Your task to perform on an android device: add a label to a message in the gmail app Image 0: 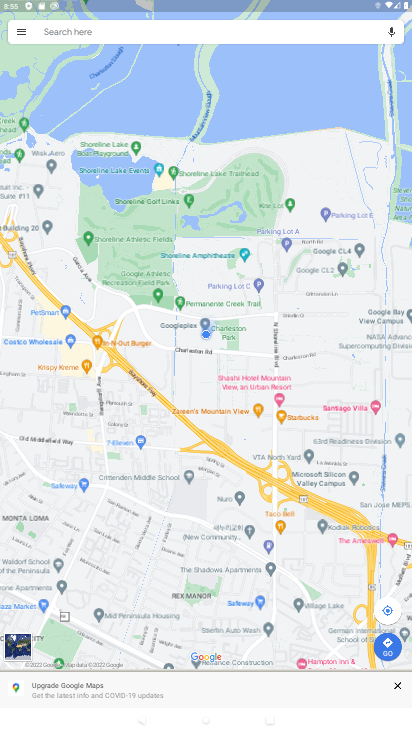
Step 0: press home button
Your task to perform on an android device: add a label to a message in the gmail app Image 1: 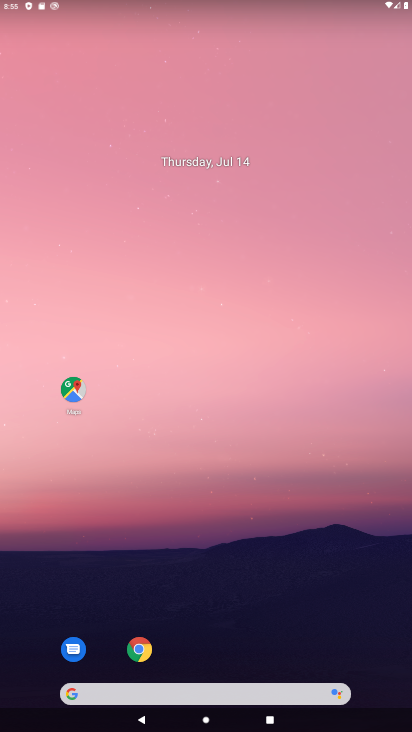
Step 1: drag from (207, 659) to (212, 344)
Your task to perform on an android device: add a label to a message in the gmail app Image 2: 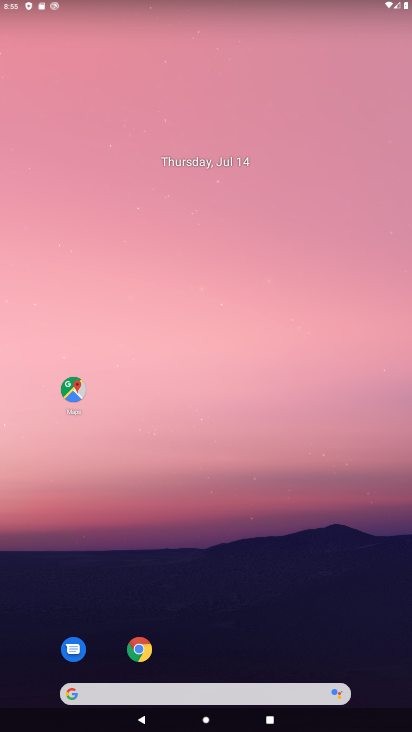
Step 2: drag from (196, 635) to (196, 189)
Your task to perform on an android device: add a label to a message in the gmail app Image 3: 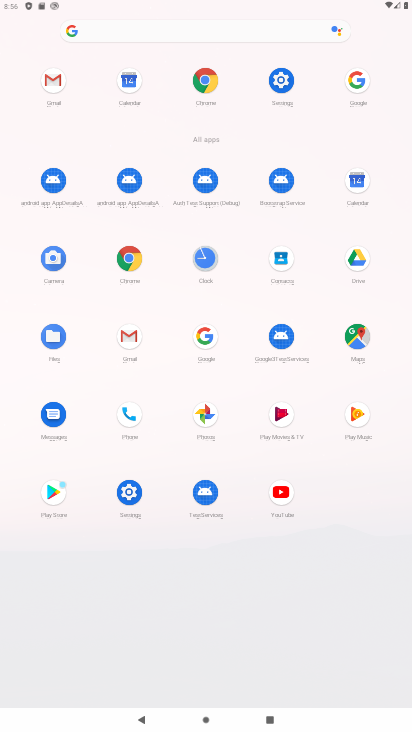
Step 3: click (42, 98)
Your task to perform on an android device: add a label to a message in the gmail app Image 4: 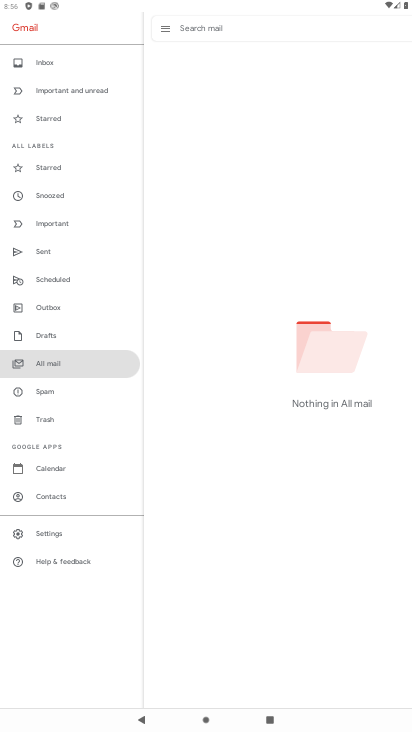
Step 4: task complete